Your task to perform on an android device: Open Amazon Image 0: 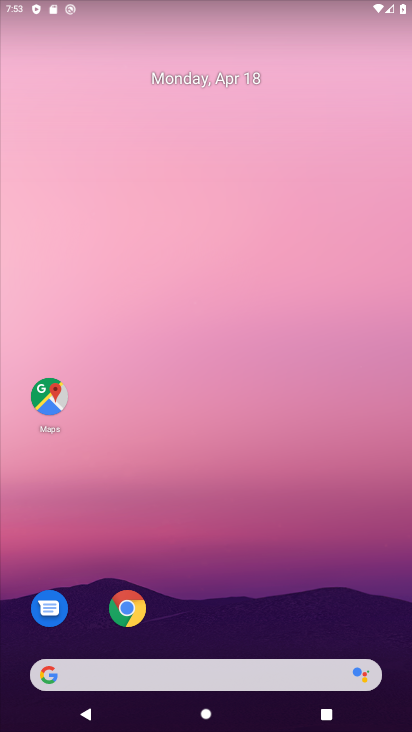
Step 0: click (128, 604)
Your task to perform on an android device: Open Amazon Image 1: 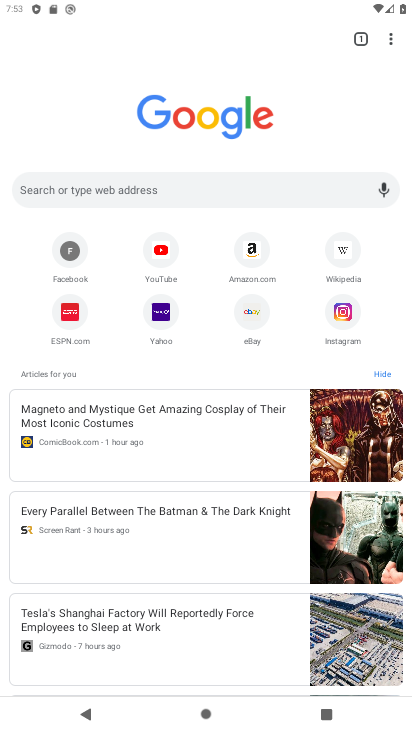
Step 1: click (252, 245)
Your task to perform on an android device: Open Amazon Image 2: 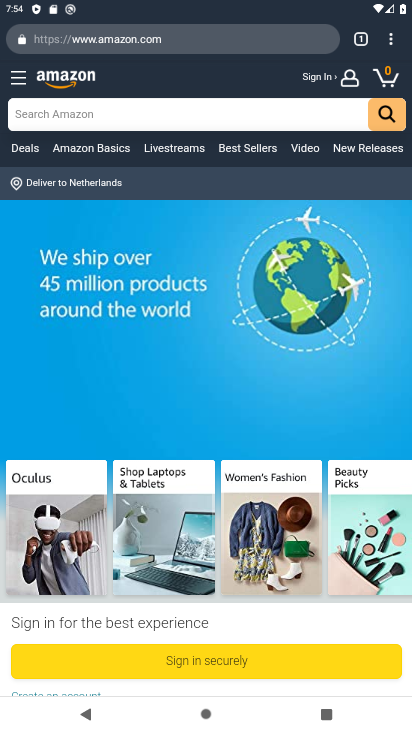
Step 2: task complete